Your task to perform on an android device: Open network settings Image 0: 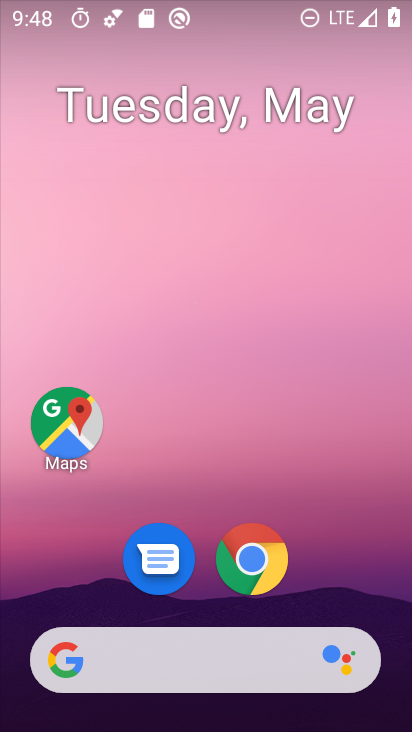
Step 0: drag from (388, 567) to (292, 59)
Your task to perform on an android device: Open network settings Image 1: 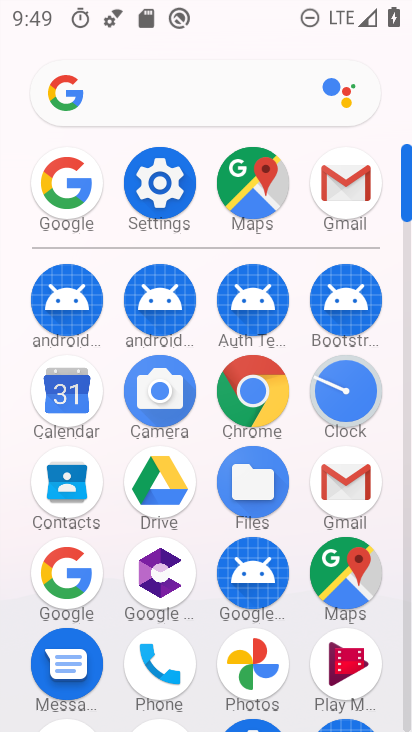
Step 1: click (176, 204)
Your task to perform on an android device: Open network settings Image 2: 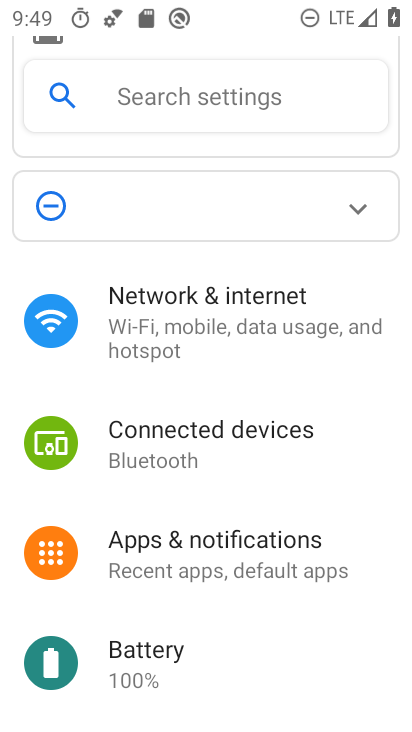
Step 2: click (163, 318)
Your task to perform on an android device: Open network settings Image 3: 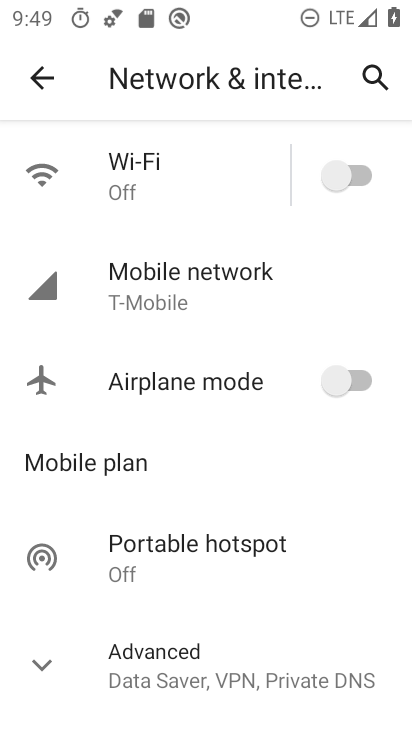
Step 3: task complete